Your task to perform on an android device: find snoozed emails in the gmail app Image 0: 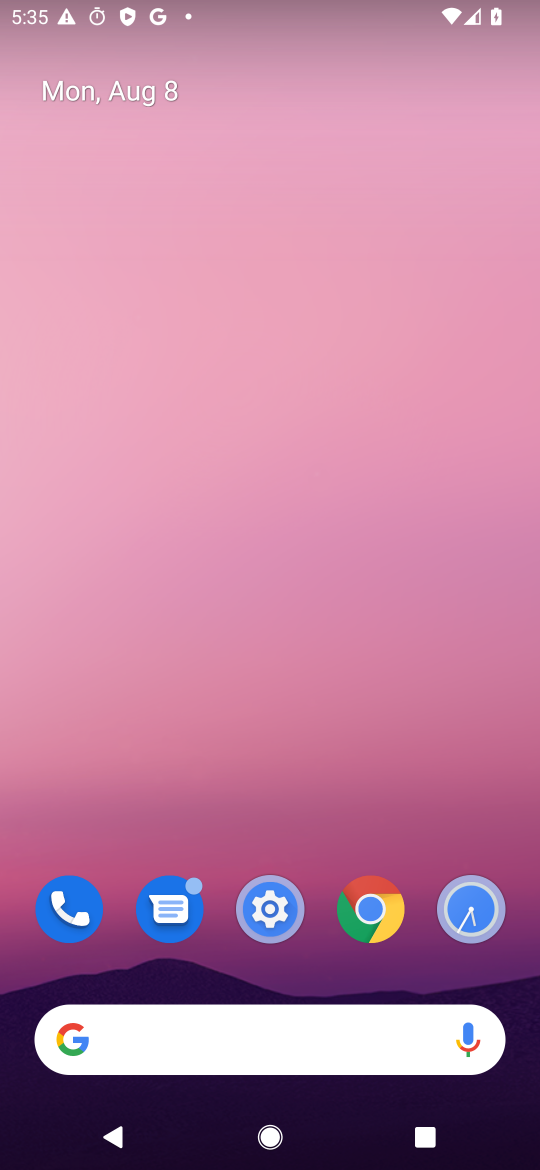
Step 0: drag from (226, 1056) to (530, 225)
Your task to perform on an android device: find snoozed emails in the gmail app Image 1: 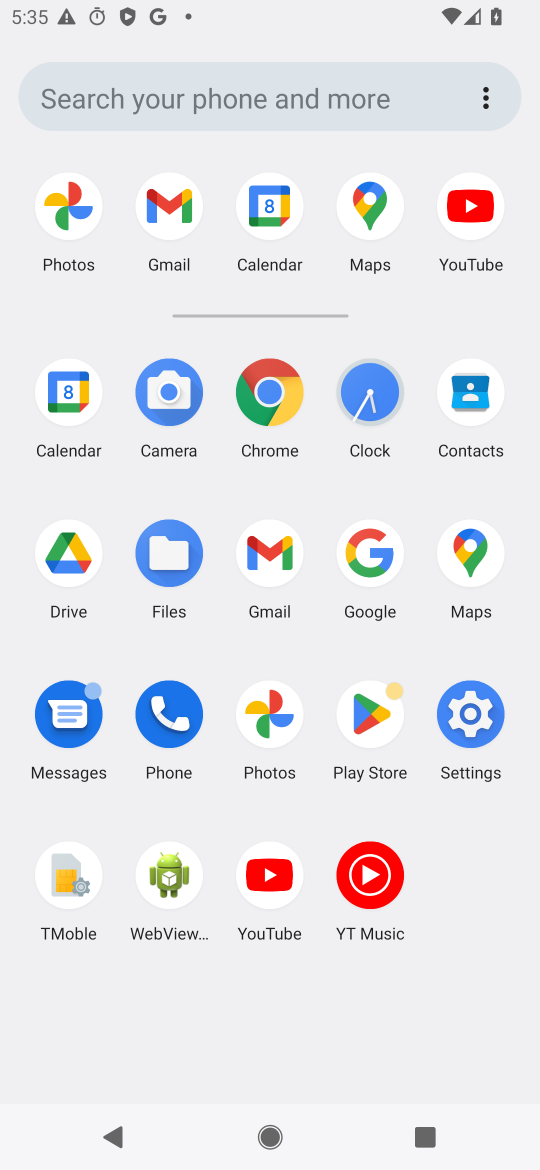
Step 1: click (270, 554)
Your task to perform on an android device: find snoozed emails in the gmail app Image 2: 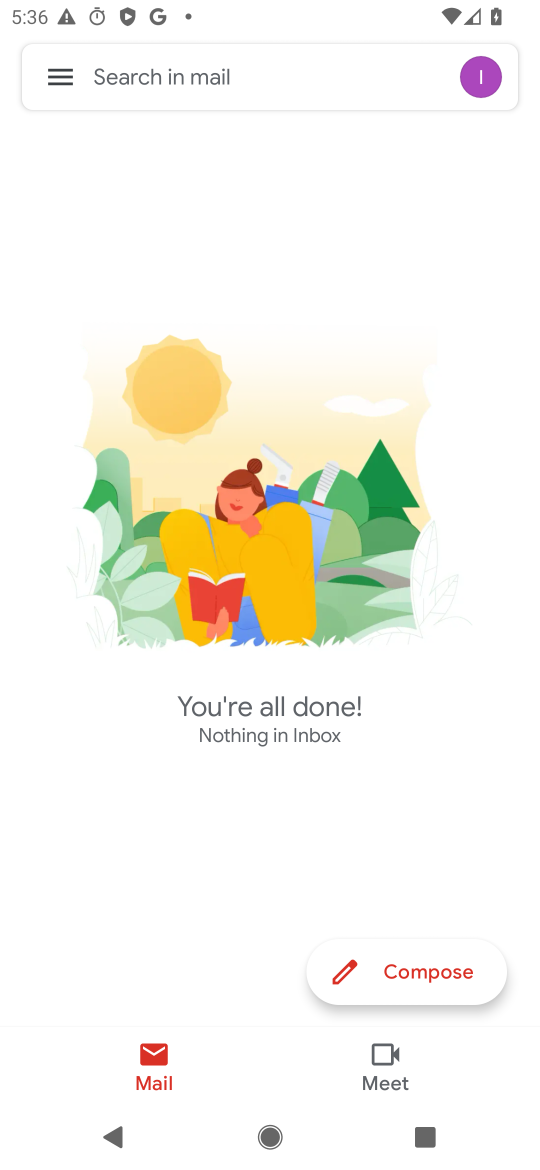
Step 2: click (46, 63)
Your task to perform on an android device: find snoozed emails in the gmail app Image 3: 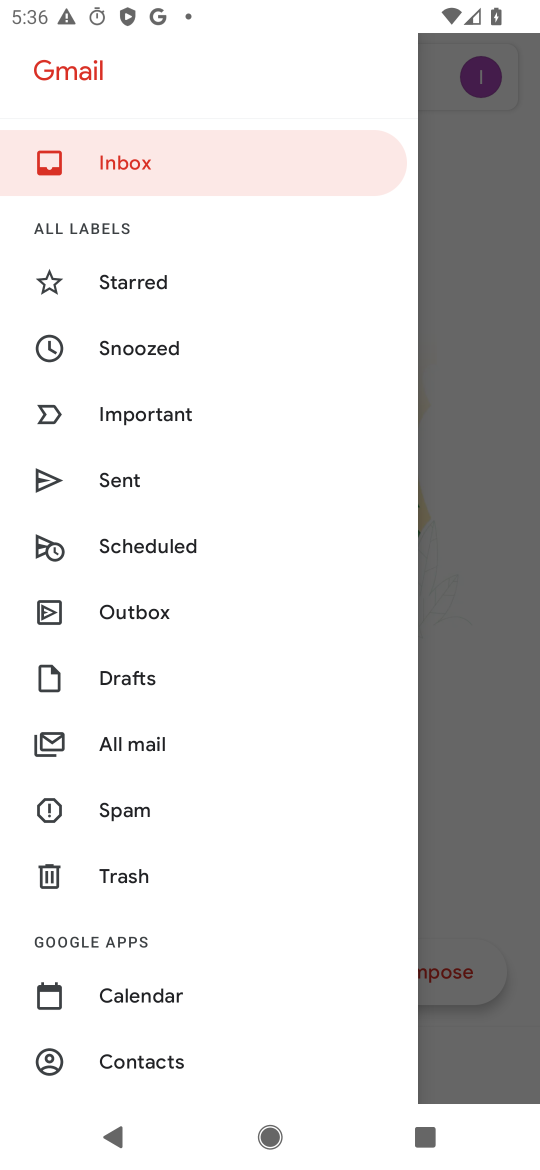
Step 3: click (136, 356)
Your task to perform on an android device: find snoozed emails in the gmail app Image 4: 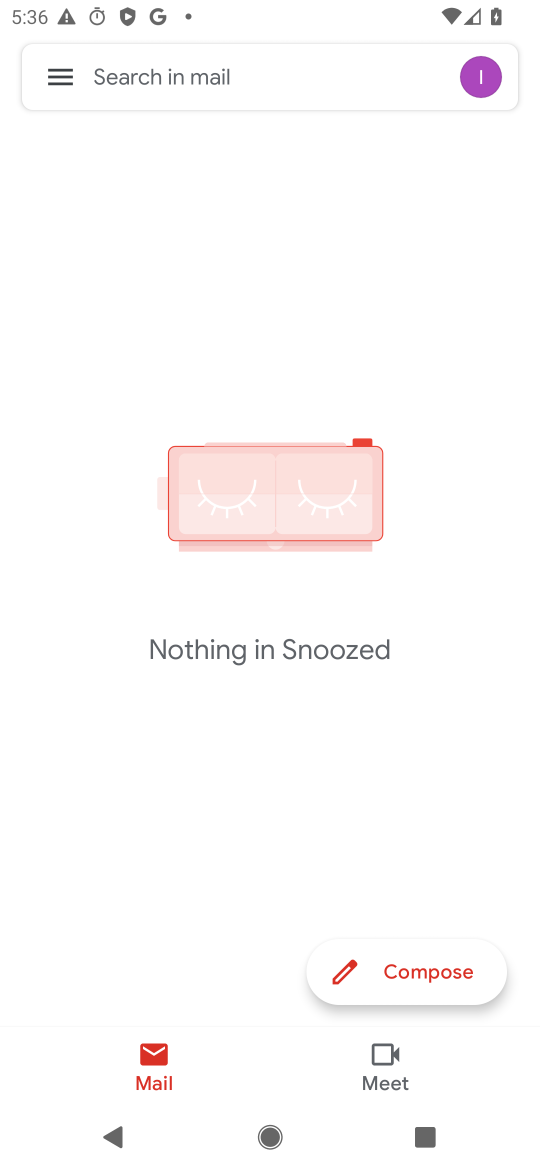
Step 4: task complete